Your task to perform on an android device: What's the weather going to be this weekend? Image 0: 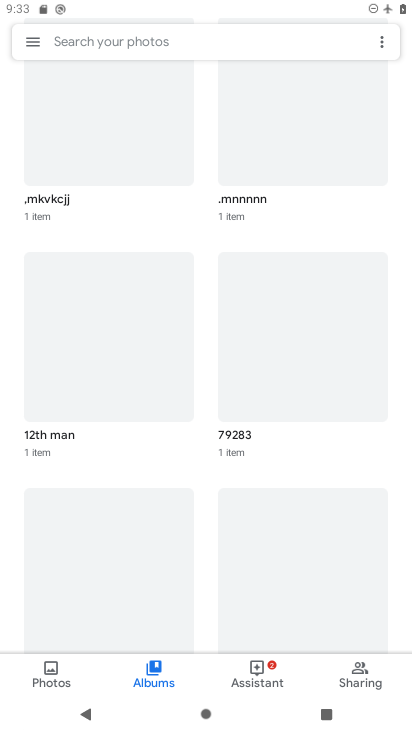
Step 0: press home button
Your task to perform on an android device: What's the weather going to be this weekend? Image 1: 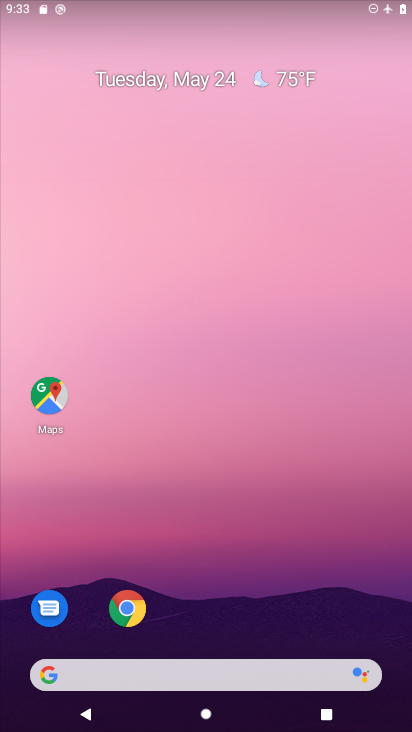
Step 1: click (297, 72)
Your task to perform on an android device: What's the weather going to be this weekend? Image 2: 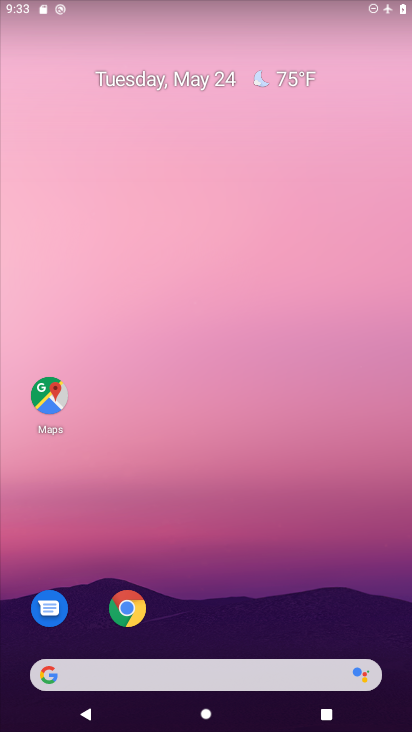
Step 2: drag from (242, 583) to (186, 8)
Your task to perform on an android device: What's the weather going to be this weekend? Image 3: 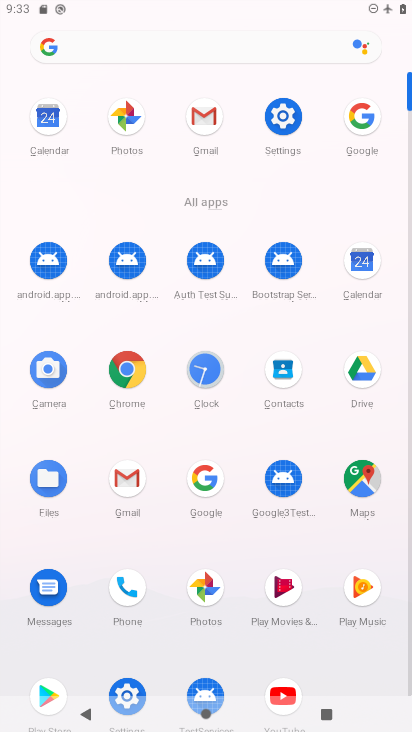
Step 3: click (212, 486)
Your task to perform on an android device: What's the weather going to be this weekend? Image 4: 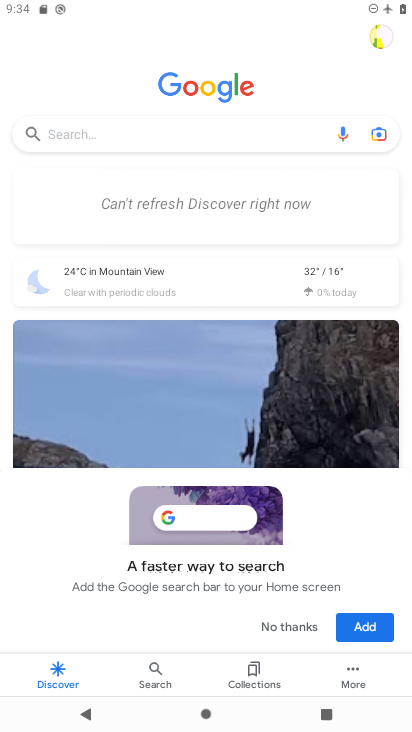
Step 4: click (322, 274)
Your task to perform on an android device: What's the weather going to be this weekend? Image 5: 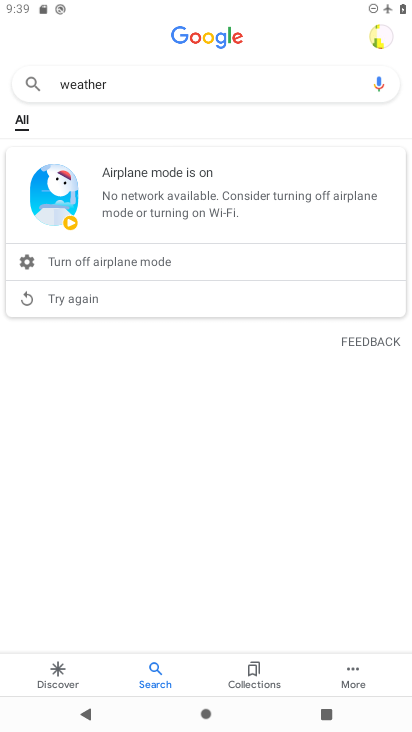
Step 5: task complete